Your task to perform on an android device: What's the price of the Sony TV? Image 0: 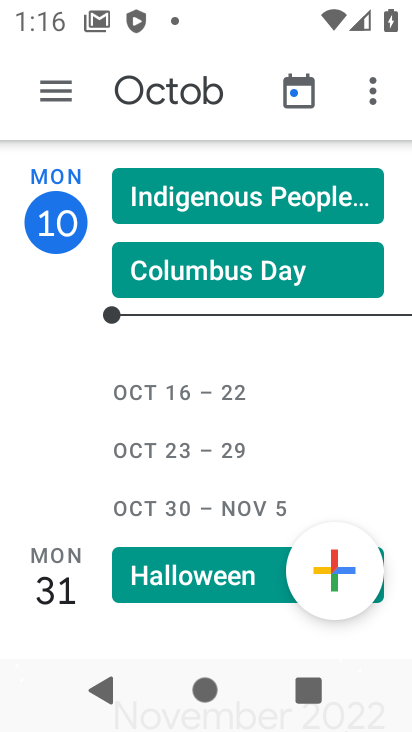
Step 0: press home button
Your task to perform on an android device: What's the price of the Sony TV? Image 1: 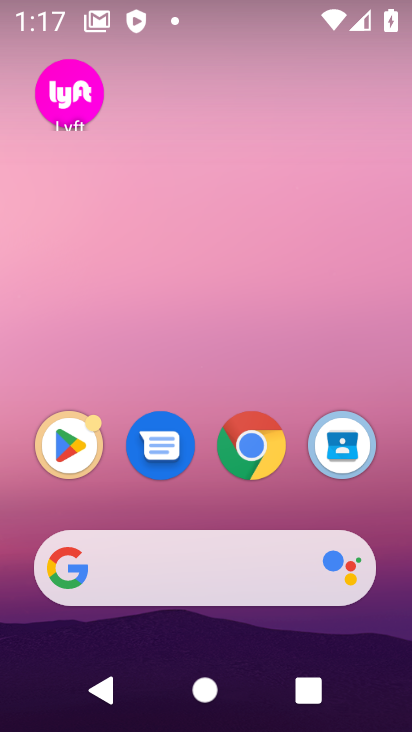
Step 1: click (216, 555)
Your task to perform on an android device: What's the price of the Sony TV? Image 2: 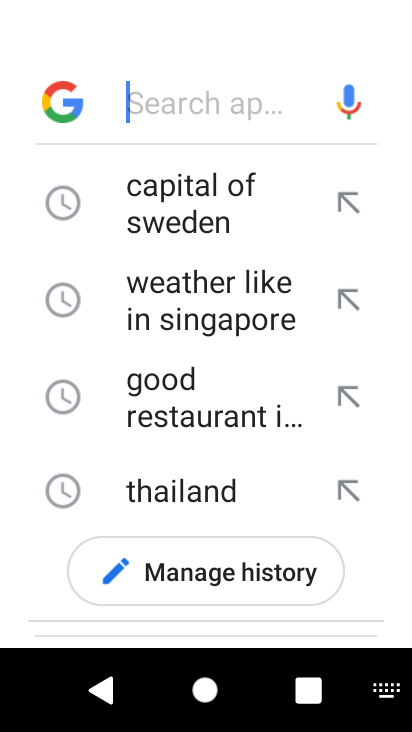
Step 2: type "price of the Sony TV"
Your task to perform on an android device: What's the price of the Sony TV? Image 3: 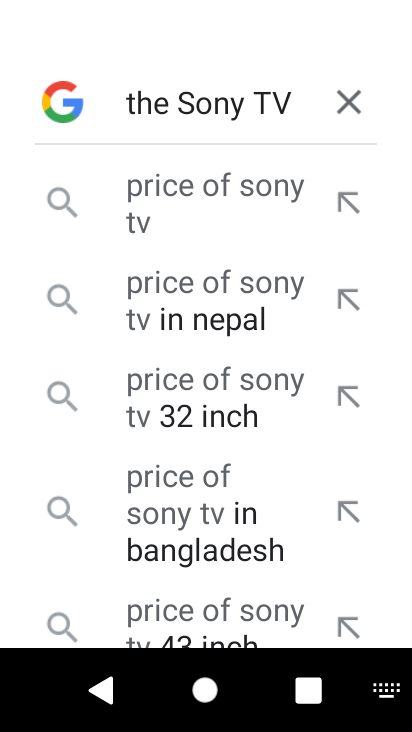
Step 3: type ""
Your task to perform on an android device: What's the price of the Sony TV? Image 4: 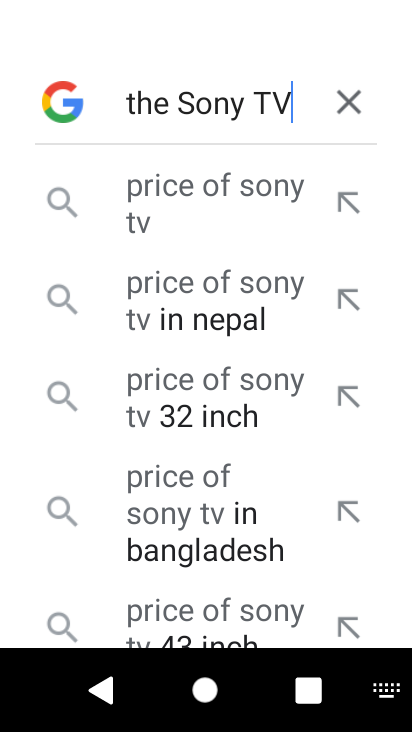
Step 4: click (200, 207)
Your task to perform on an android device: What's the price of the Sony TV? Image 5: 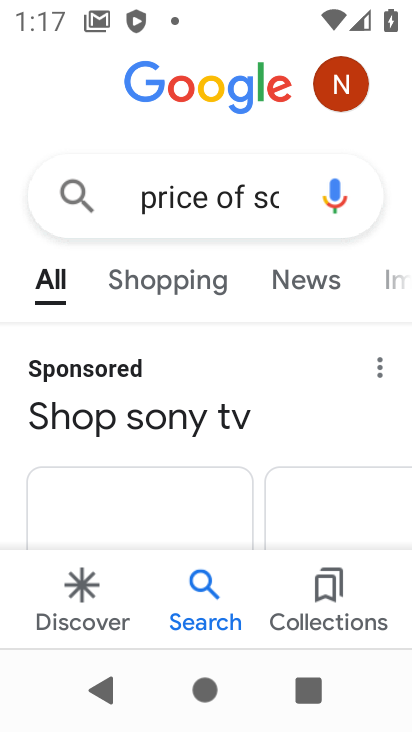
Step 5: task complete